Your task to perform on an android device: Go to Google maps Image 0: 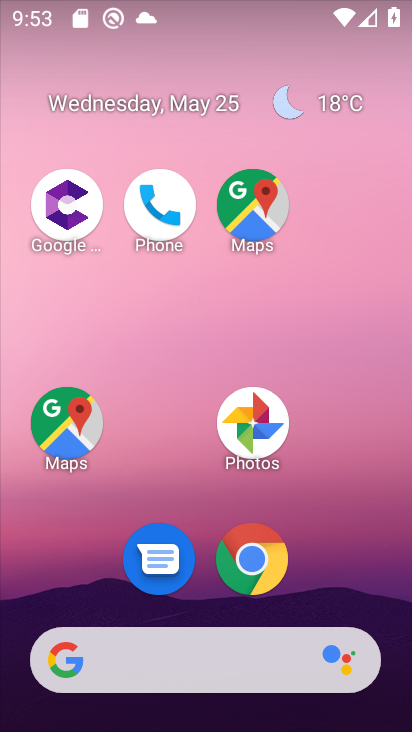
Step 0: click (66, 412)
Your task to perform on an android device: Go to Google maps Image 1: 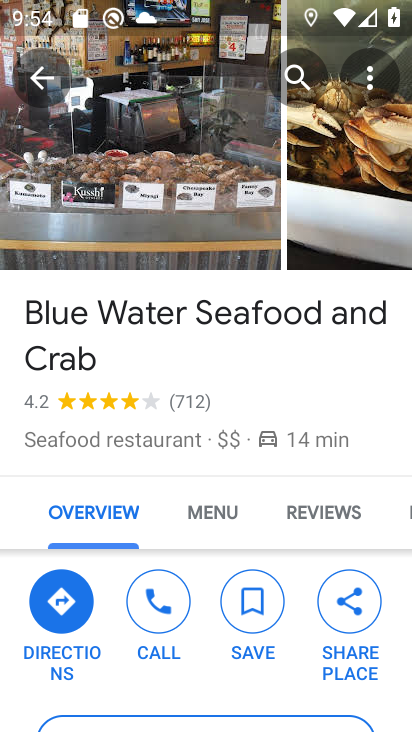
Step 1: click (389, 264)
Your task to perform on an android device: Go to Google maps Image 2: 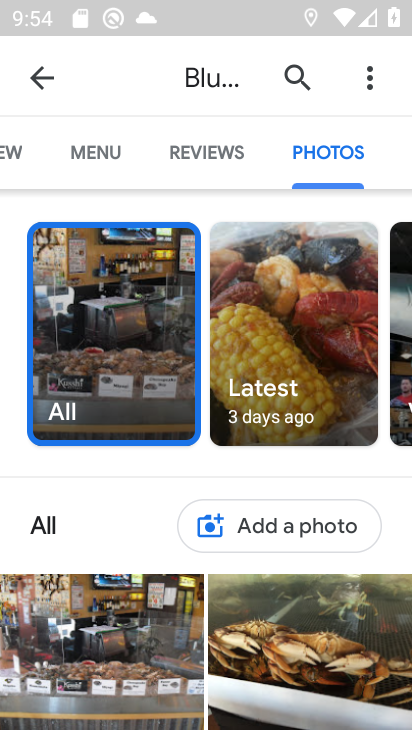
Step 2: click (58, 55)
Your task to perform on an android device: Go to Google maps Image 3: 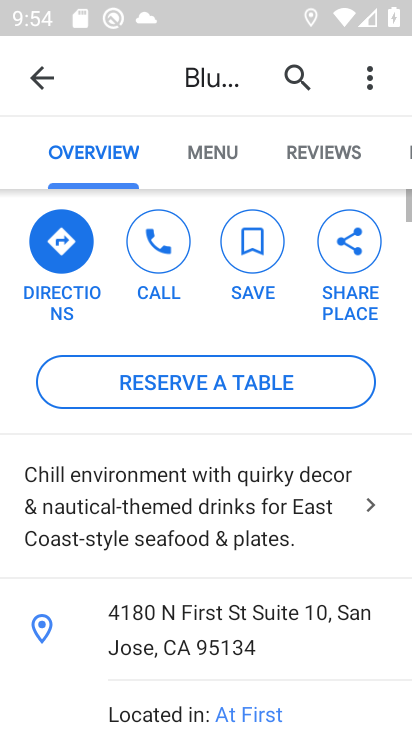
Step 3: task complete